Your task to perform on an android device: Clear the shopping cart on costco.com. Add "rayovac triple a" to the cart on costco.com Image 0: 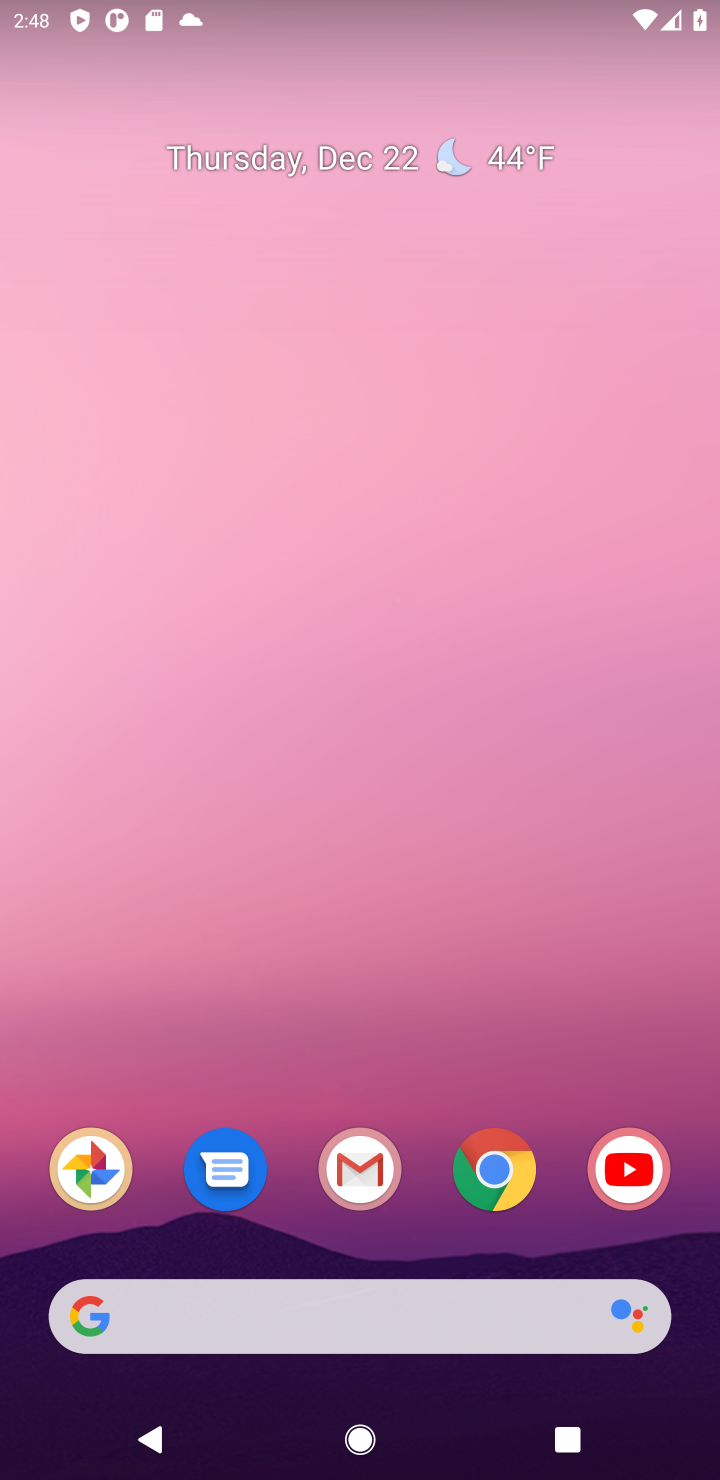
Step 0: click (503, 1170)
Your task to perform on an android device: Clear the shopping cart on costco.com. Add "rayovac triple a" to the cart on costco.com Image 1: 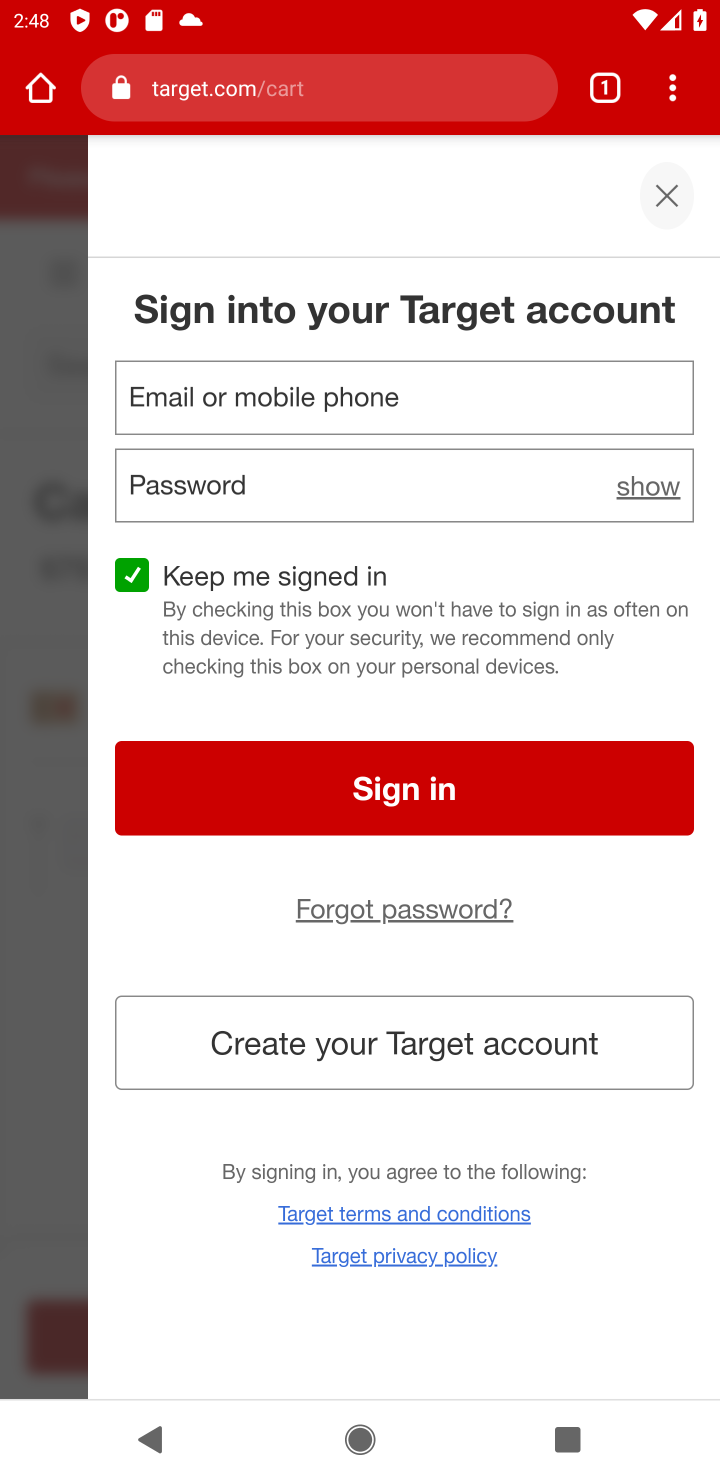
Step 1: click (237, 100)
Your task to perform on an android device: Clear the shopping cart on costco.com. Add "rayovac triple a" to the cart on costco.com Image 2: 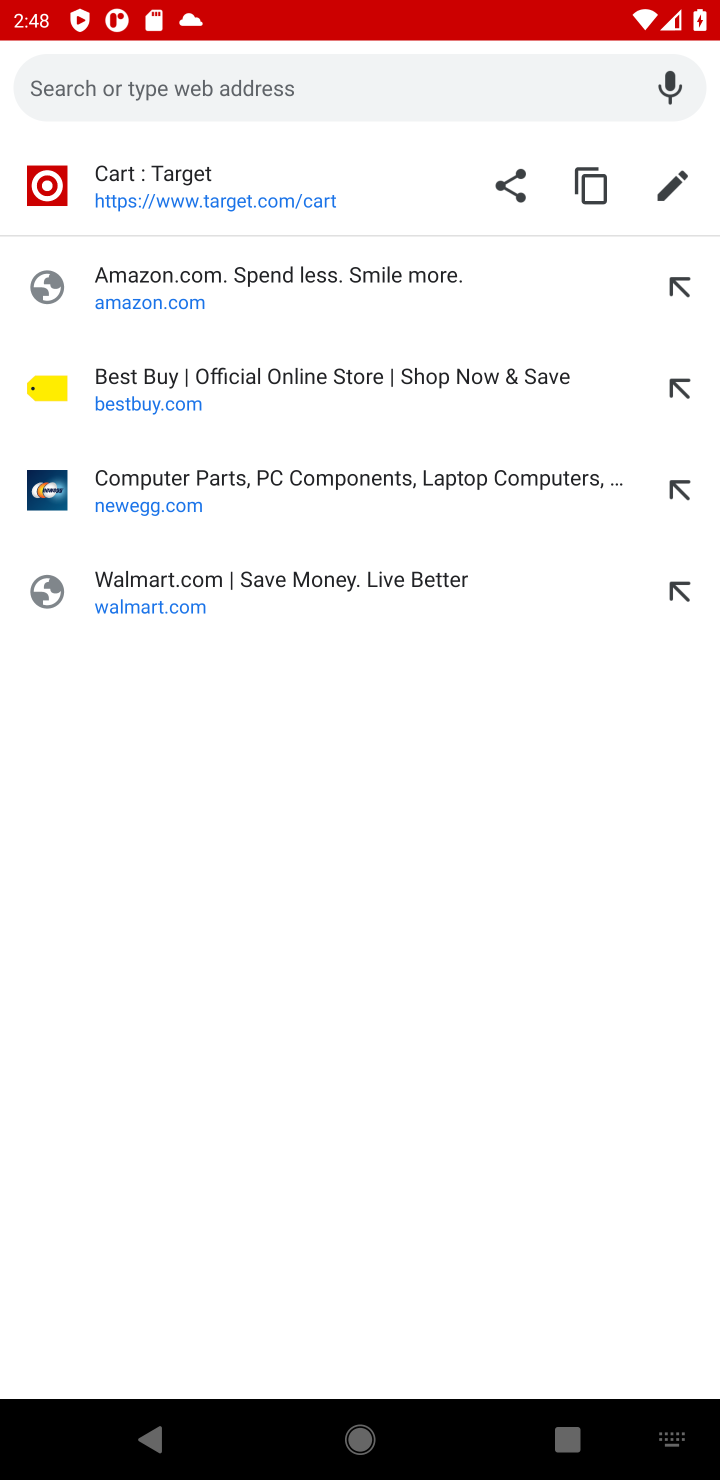
Step 2: type "costco.com"
Your task to perform on an android device: Clear the shopping cart on costco.com. Add "rayovac triple a" to the cart on costco.com Image 3: 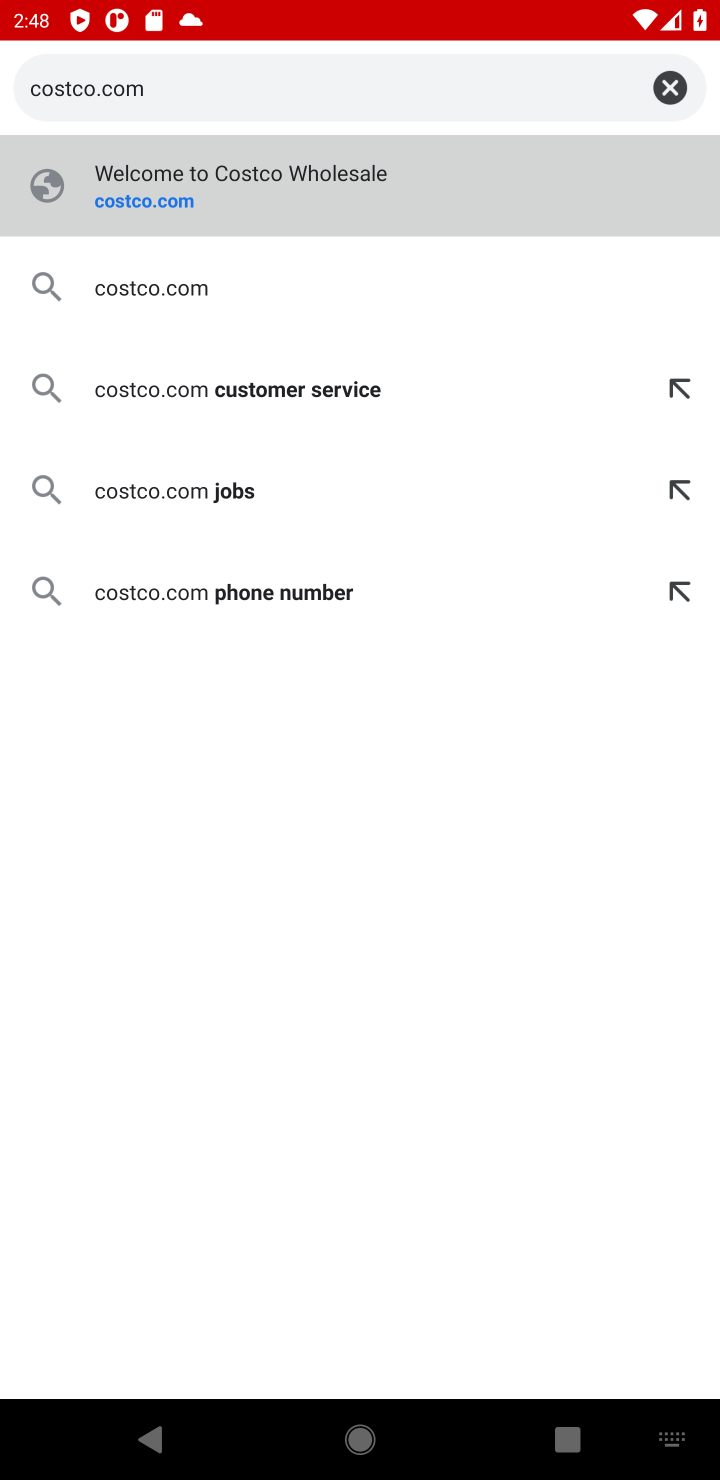
Step 3: click (156, 184)
Your task to perform on an android device: Clear the shopping cart on costco.com. Add "rayovac triple a" to the cart on costco.com Image 4: 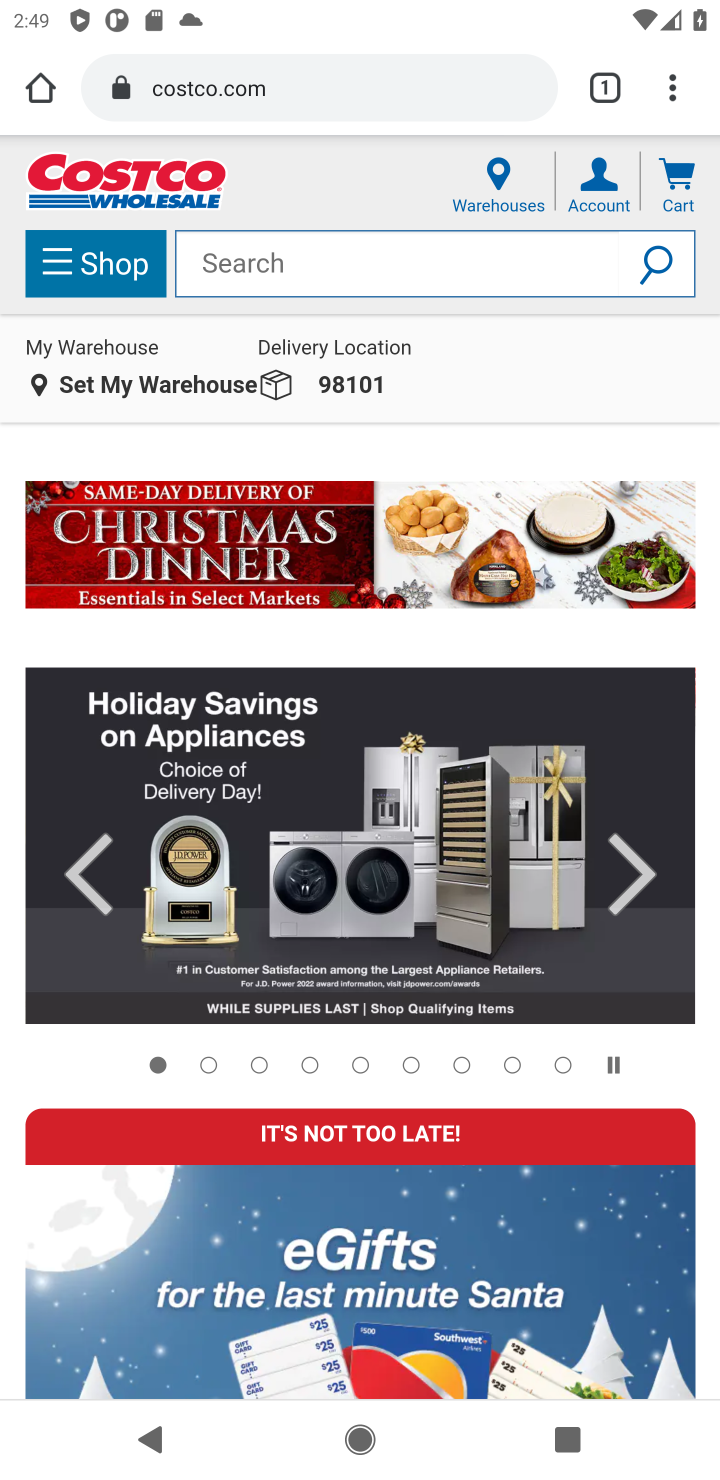
Step 4: click (680, 187)
Your task to perform on an android device: Clear the shopping cart on costco.com. Add "rayovac triple a" to the cart on costco.com Image 5: 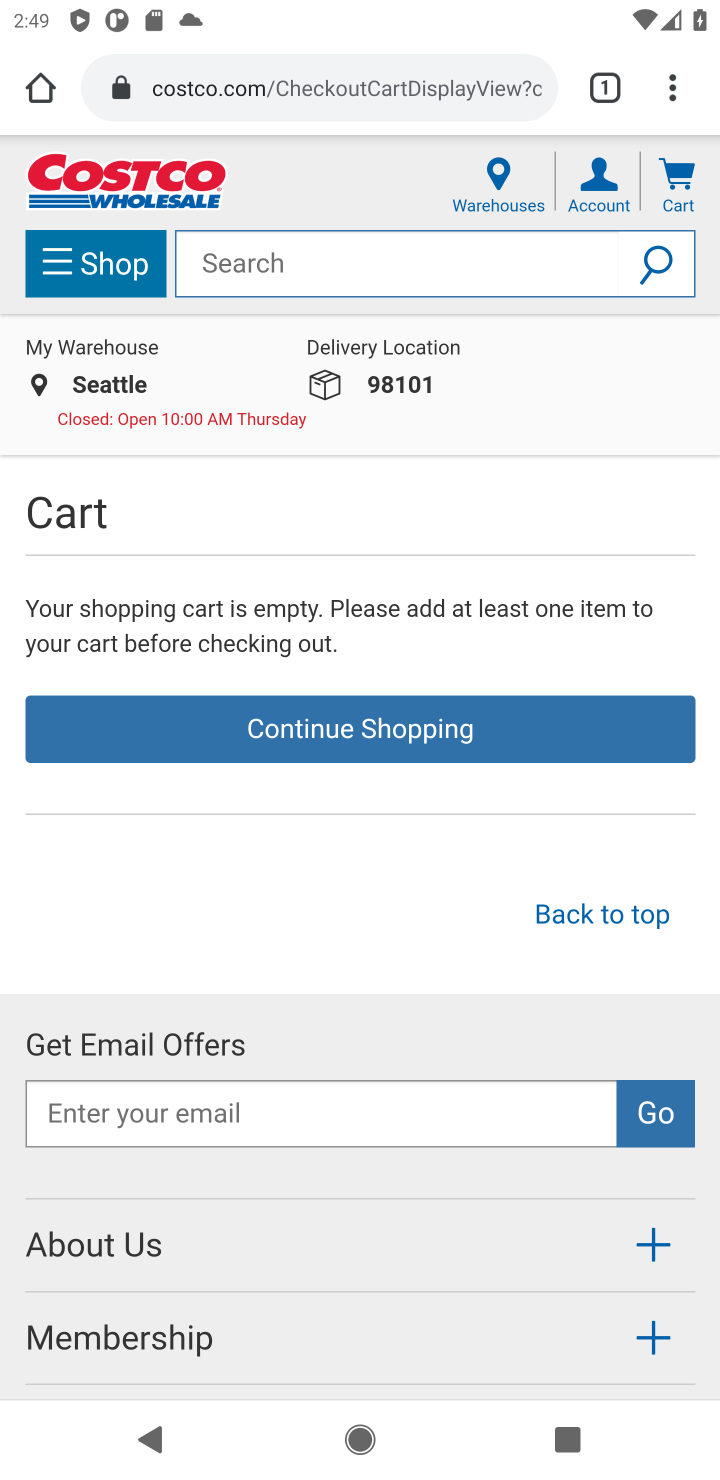
Step 5: click (252, 262)
Your task to perform on an android device: Clear the shopping cart on costco.com. Add "rayovac triple a" to the cart on costco.com Image 6: 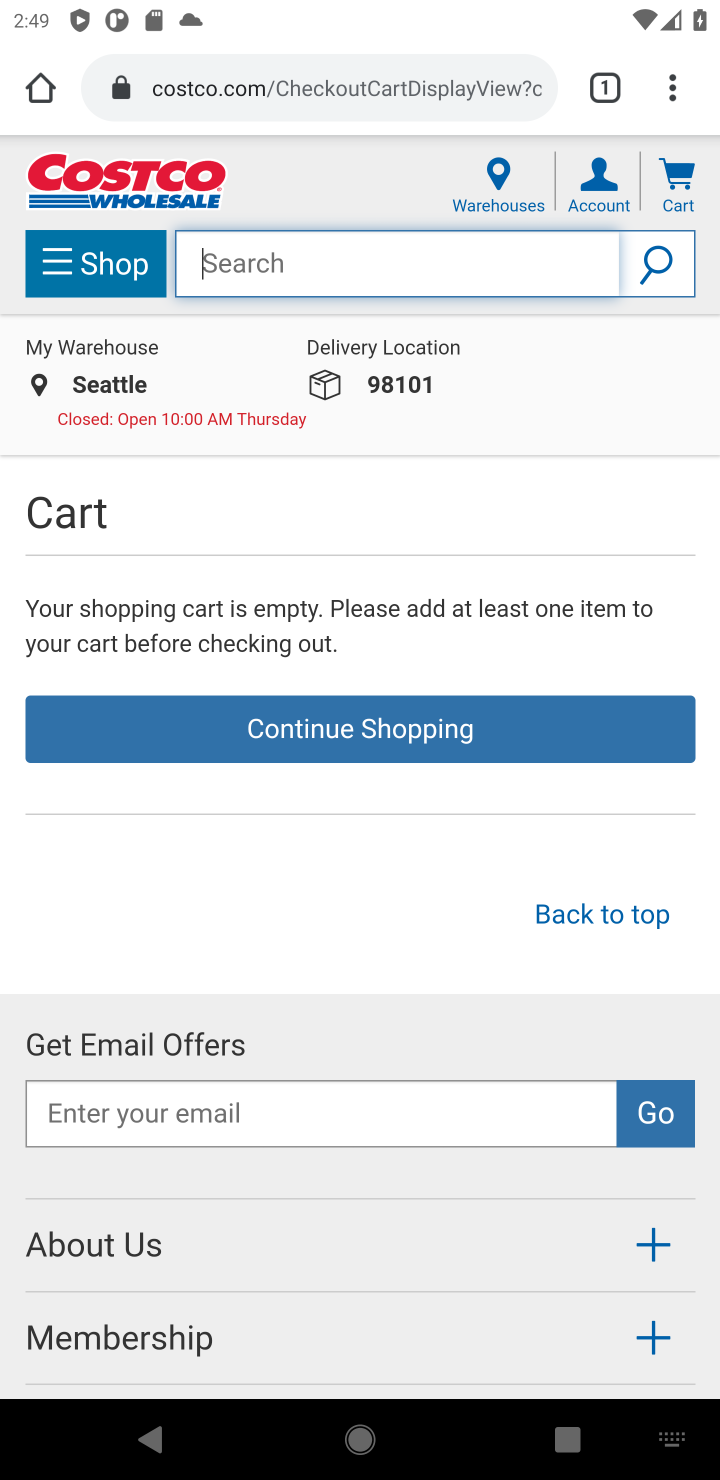
Step 6: type "rayovac triple a"
Your task to perform on an android device: Clear the shopping cart on costco.com. Add "rayovac triple a" to the cart on costco.com Image 7: 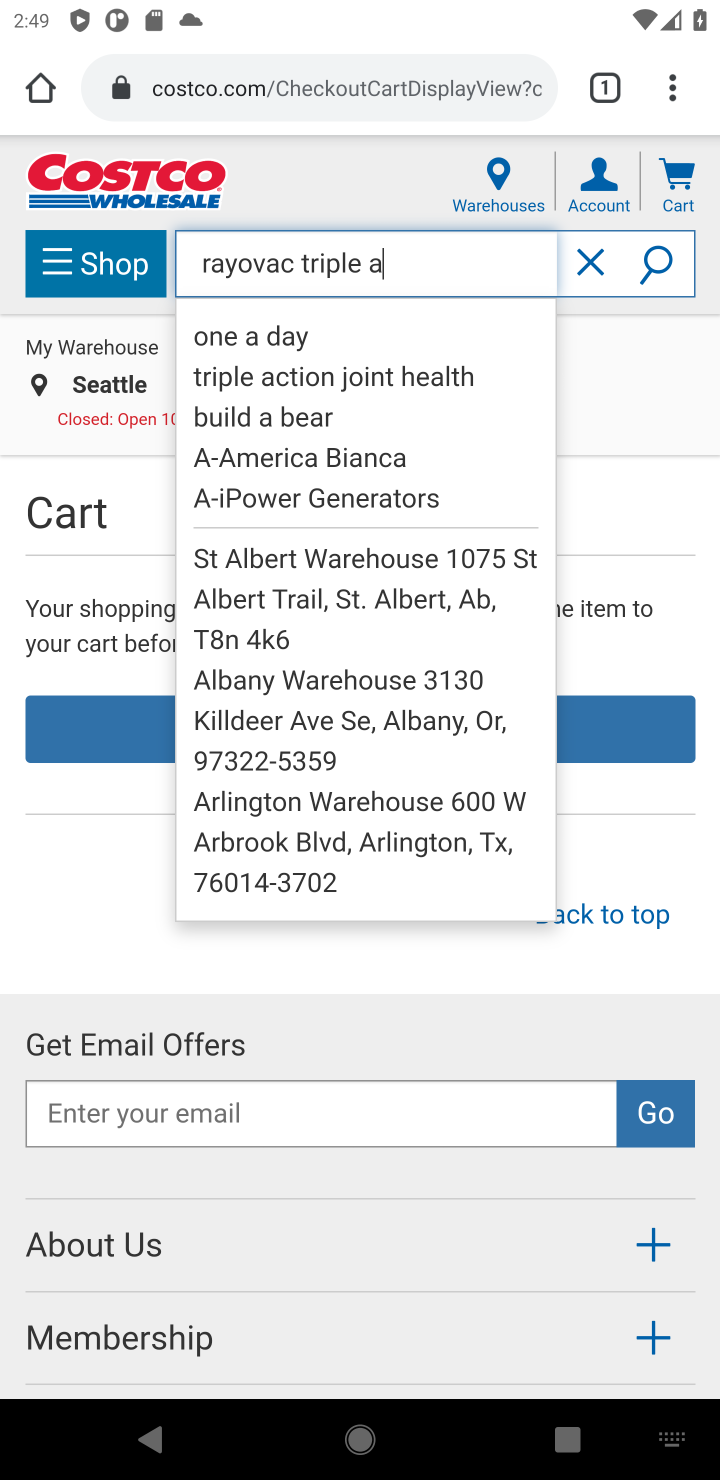
Step 7: click (658, 265)
Your task to perform on an android device: Clear the shopping cart on costco.com. Add "rayovac triple a" to the cart on costco.com Image 8: 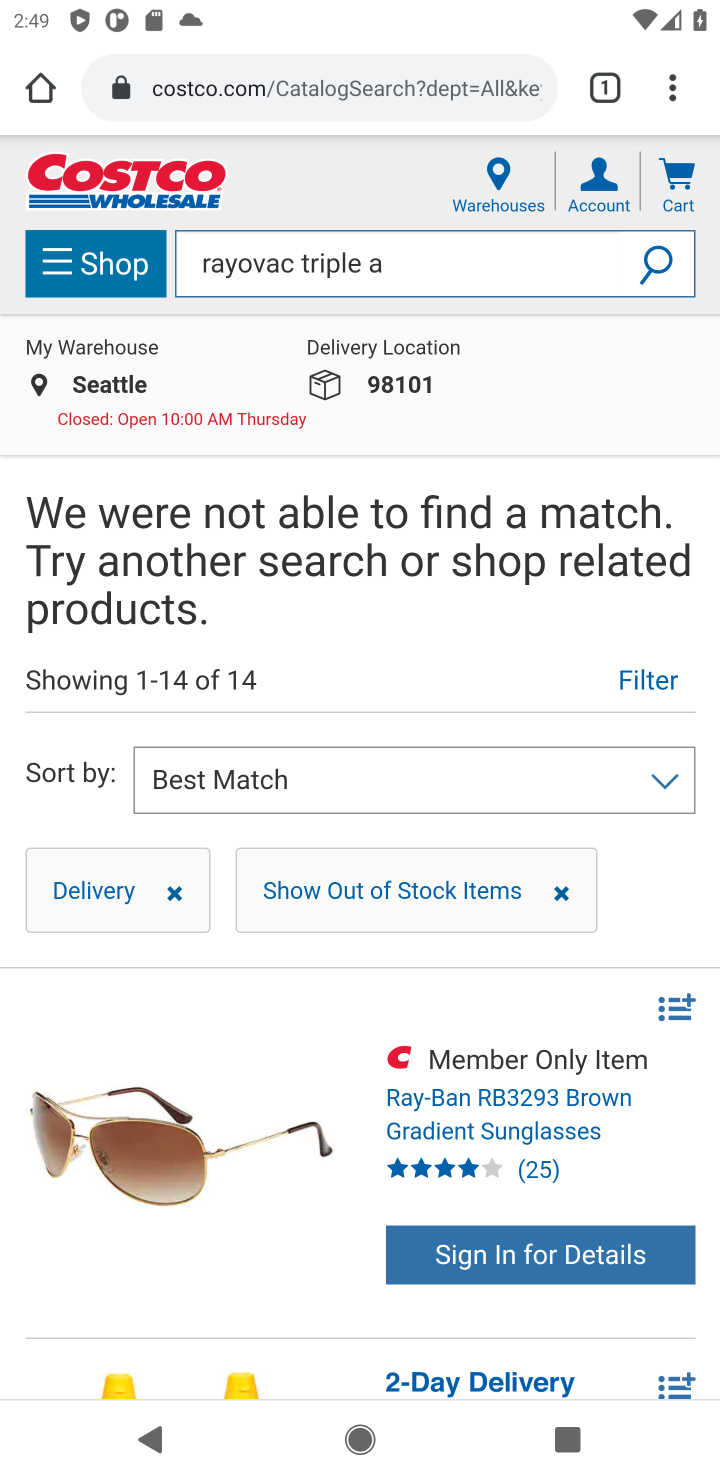
Step 8: task complete